Your task to perform on an android device: turn on location history Image 0: 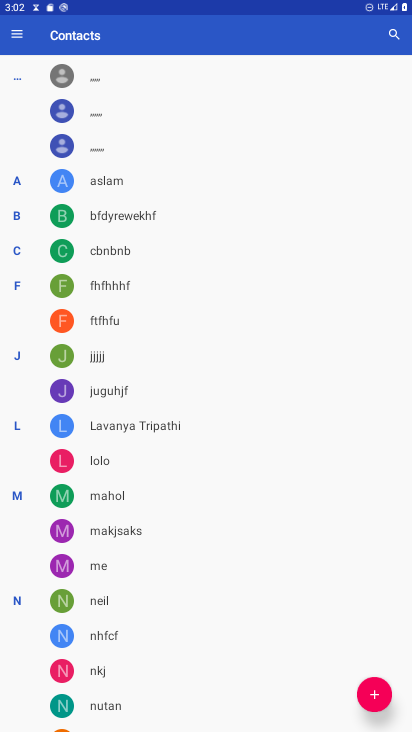
Step 0: press home button
Your task to perform on an android device: turn on location history Image 1: 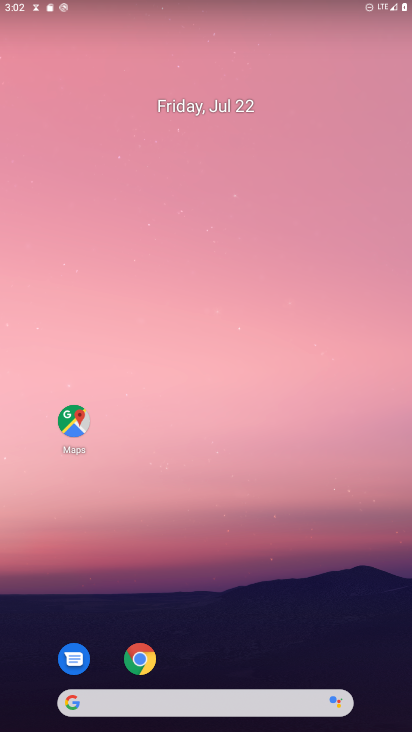
Step 1: drag from (313, 623) to (361, 92)
Your task to perform on an android device: turn on location history Image 2: 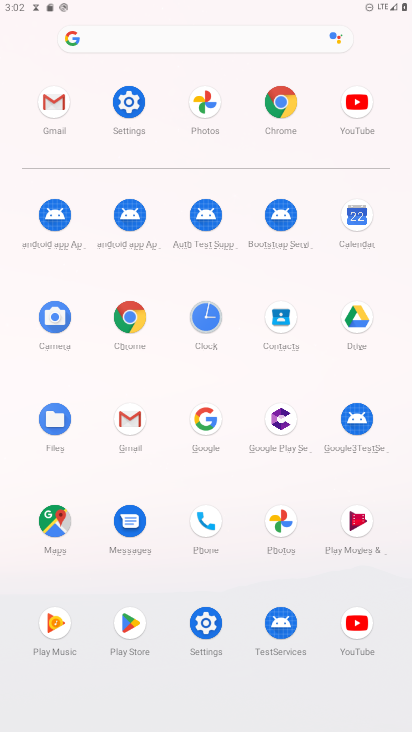
Step 2: click (133, 119)
Your task to perform on an android device: turn on location history Image 3: 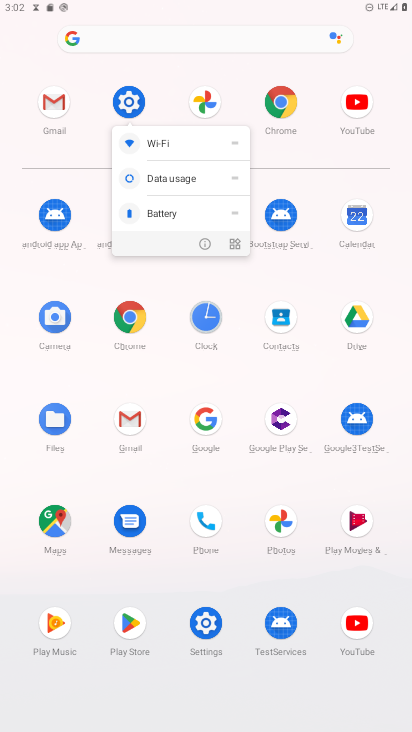
Step 3: click (131, 105)
Your task to perform on an android device: turn on location history Image 4: 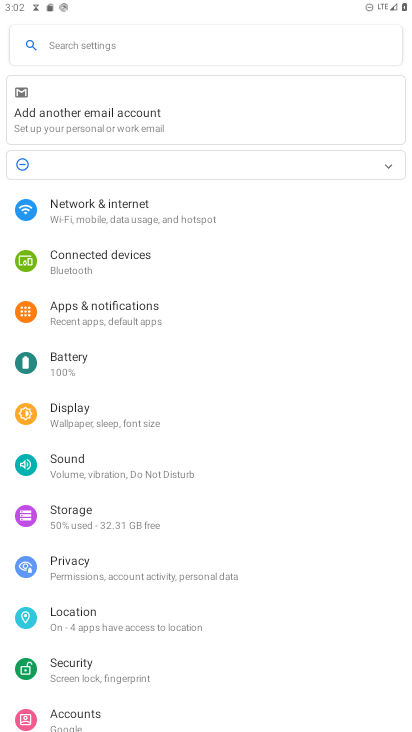
Step 4: click (114, 624)
Your task to perform on an android device: turn on location history Image 5: 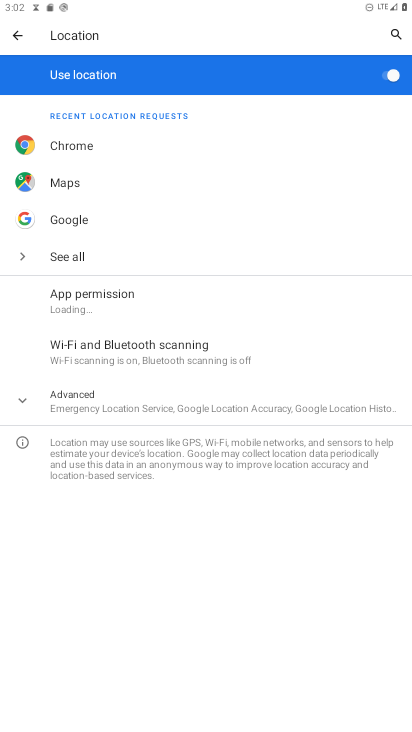
Step 5: click (100, 393)
Your task to perform on an android device: turn on location history Image 6: 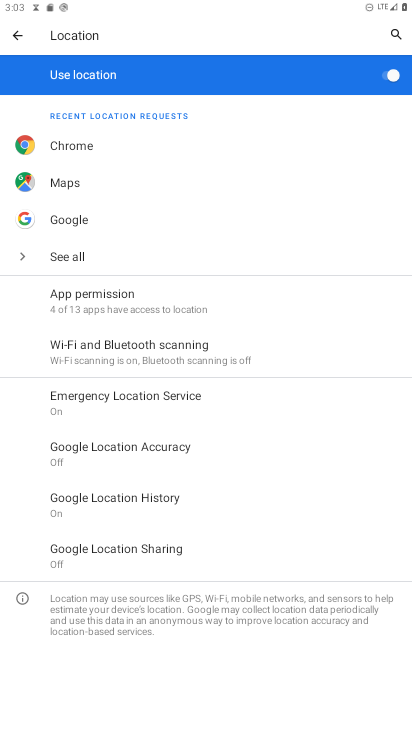
Step 6: click (154, 507)
Your task to perform on an android device: turn on location history Image 7: 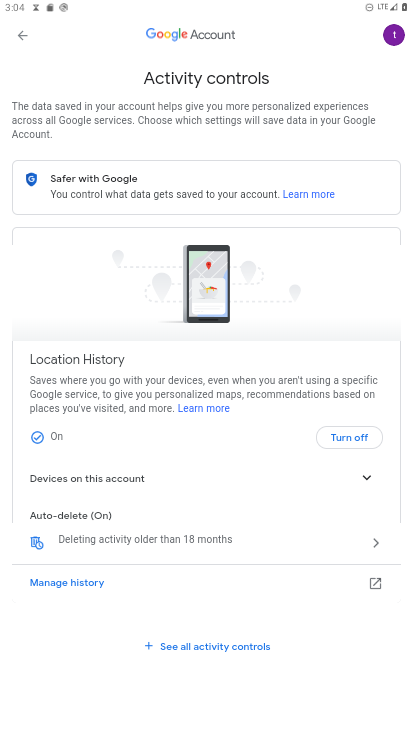
Step 7: task complete